Your task to perform on an android device: Show me productivity apps on the Play Store Image 0: 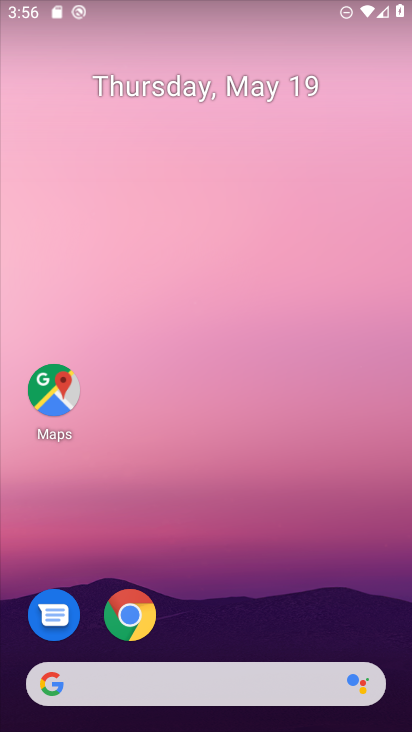
Step 0: drag from (290, 560) to (222, 53)
Your task to perform on an android device: Show me productivity apps on the Play Store Image 1: 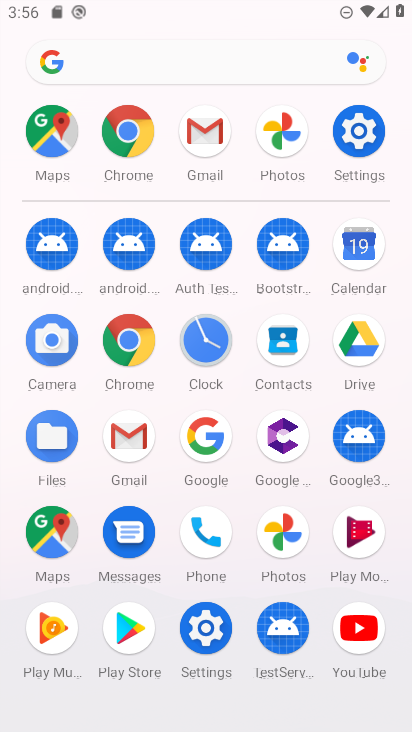
Step 1: click (151, 619)
Your task to perform on an android device: Show me productivity apps on the Play Store Image 2: 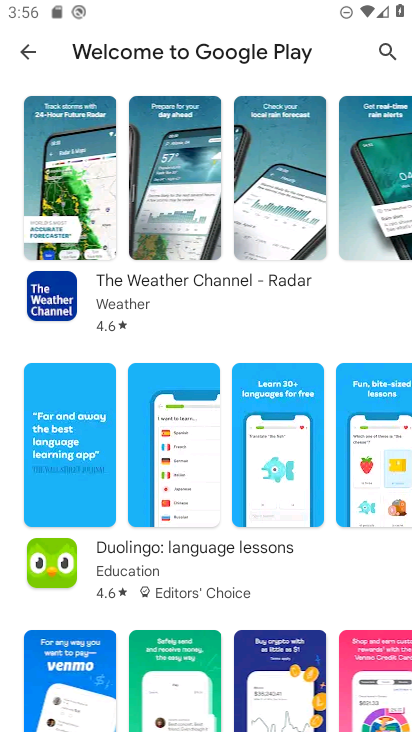
Step 2: click (26, 45)
Your task to perform on an android device: Show me productivity apps on the Play Store Image 3: 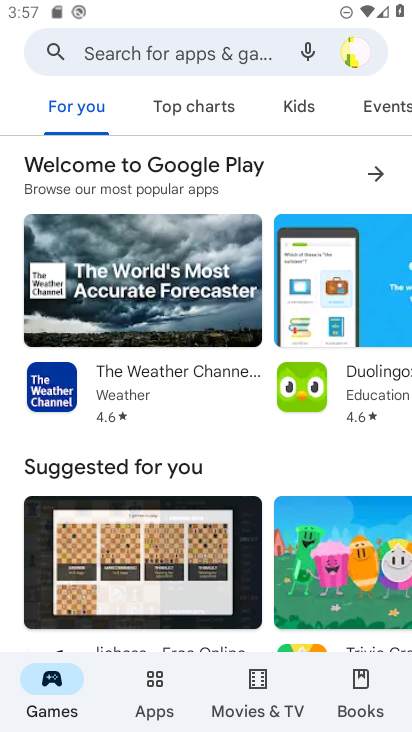
Step 3: drag from (366, 115) to (210, 114)
Your task to perform on an android device: Show me productivity apps on the Play Store Image 4: 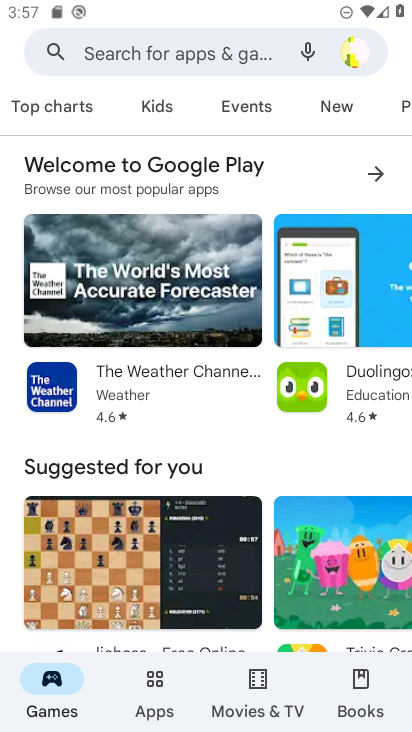
Step 4: click (153, 704)
Your task to perform on an android device: Show me productivity apps on the Play Store Image 5: 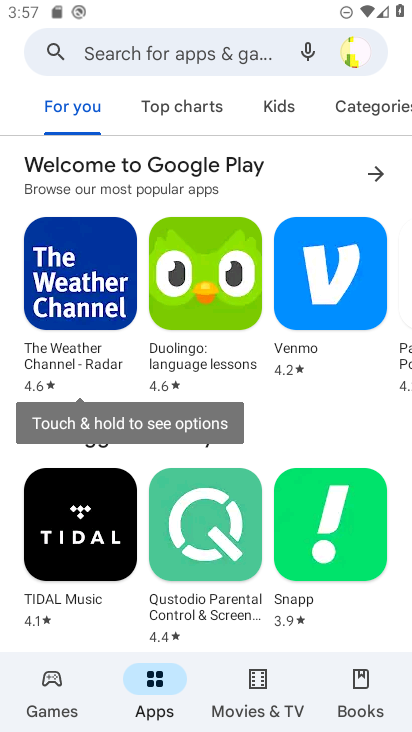
Step 5: click (389, 112)
Your task to perform on an android device: Show me productivity apps on the Play Store Image 6: 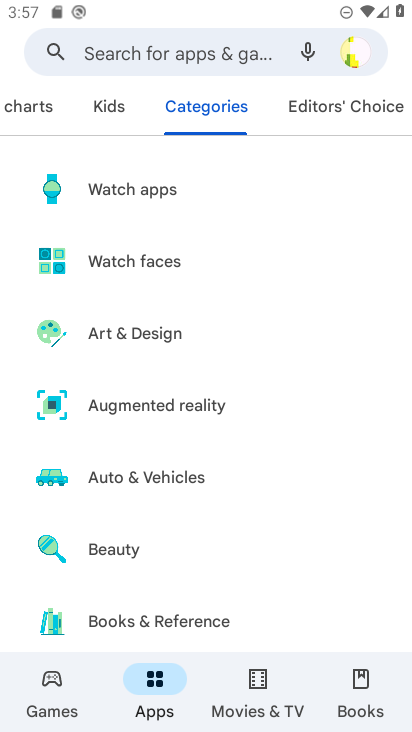
Step 6: drag from (327, 619) to (277, 195)
Your task to perform on an android device: Show me productivity apps on the Play Store Image 7: 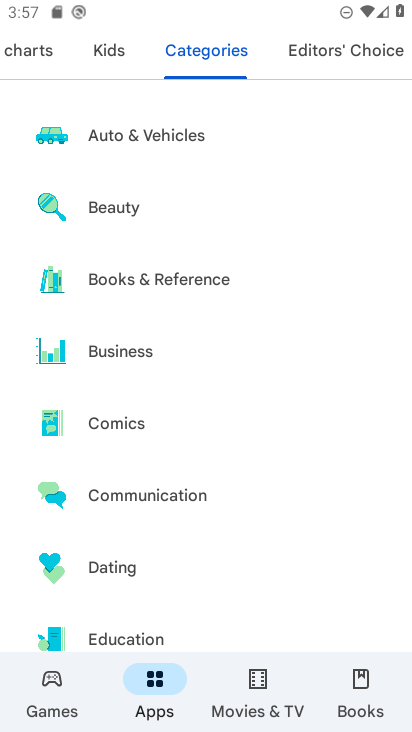
Step 7: drag from (298, 622) to (267, 137)
Your task to perform on an android device: Show me productivity apps on the Play Store Image 8: 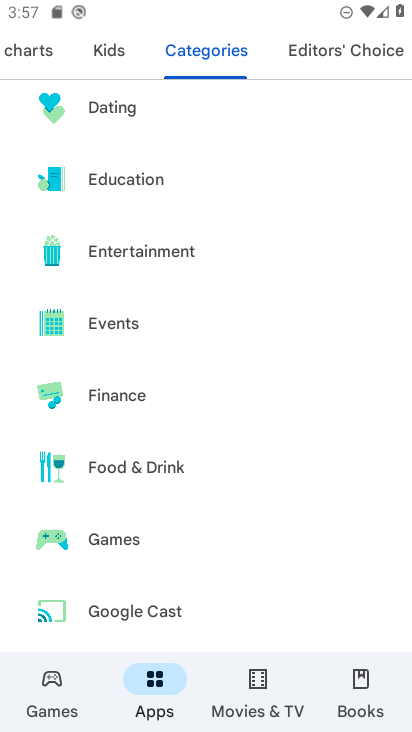
Step 8: drag from (288, 592) to (224, 152)
Your task to perform on an android device: Show me productivity apps on the Play Store Image 9: 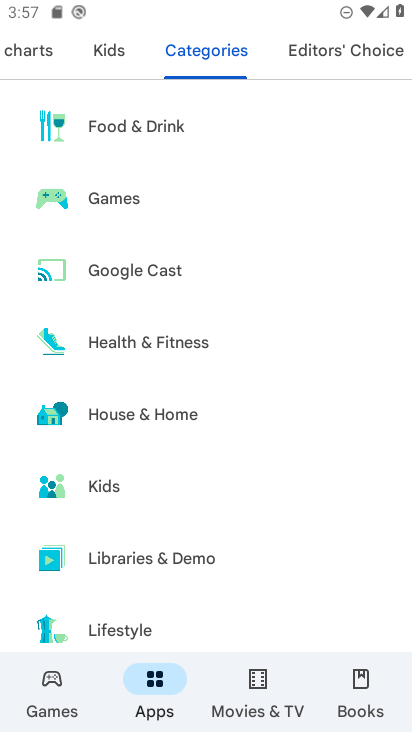
Step 9: drag from (223, 598) to (187, 134)
Your task to perform on an android device: Show me productivity apps on the Play Store Image 10: 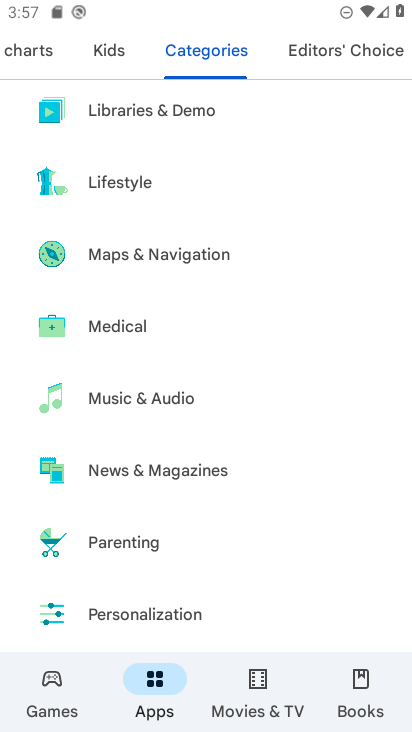
Step 10: drag from (228, 577) to (194, 122)
Your task to perform on an android device: Show me productivity apps on the Play Store Image 11: 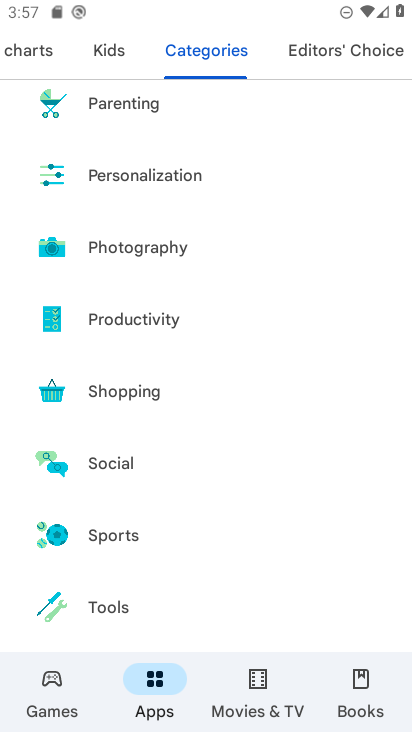
Step 11: click (172, 322)
Your task to perform on an android device: Show me productivity apps on the Play Store Image 12: 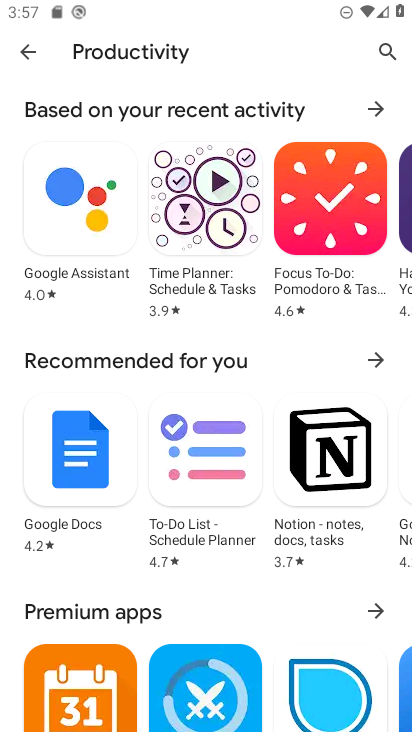
Step 12: task complete